Your task to perform on an android device: toggle wifi Image 0: 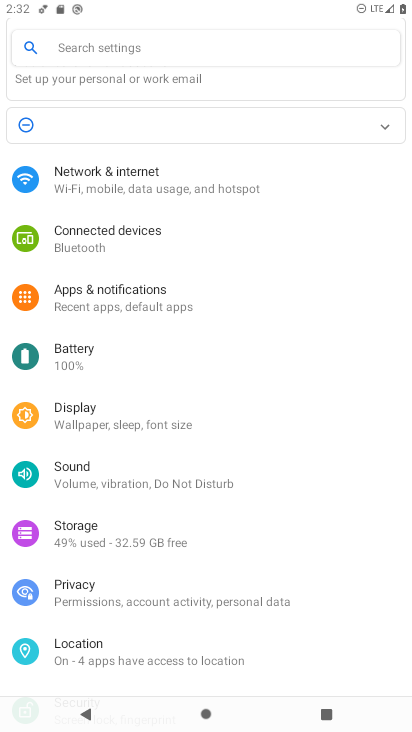
Step 0: click (82, 187)
Your task to perform on an android device: toggle wifi Image 1: 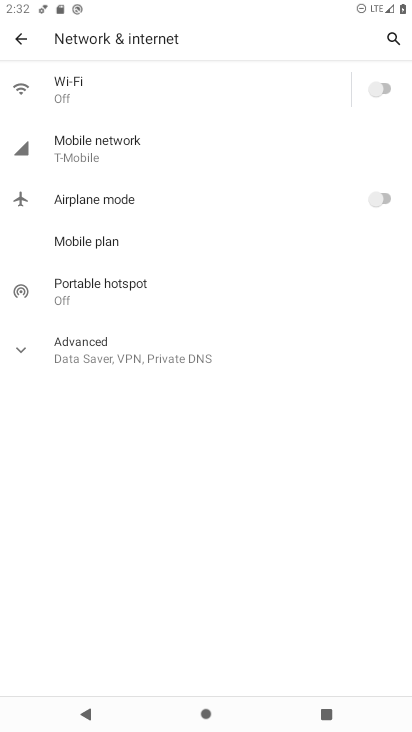
Step 1: click (18, 347)
Your task to perform on an android device: toggle wifi Image 2: 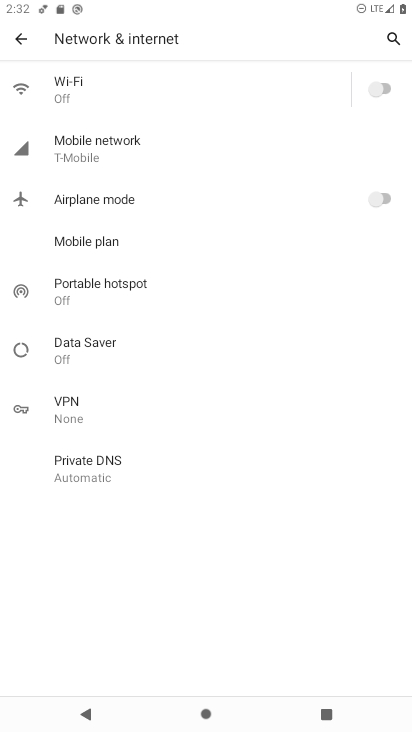
Step 2: click (387, 91)
Your task to perform on an android device: toggle wifi Image 3: 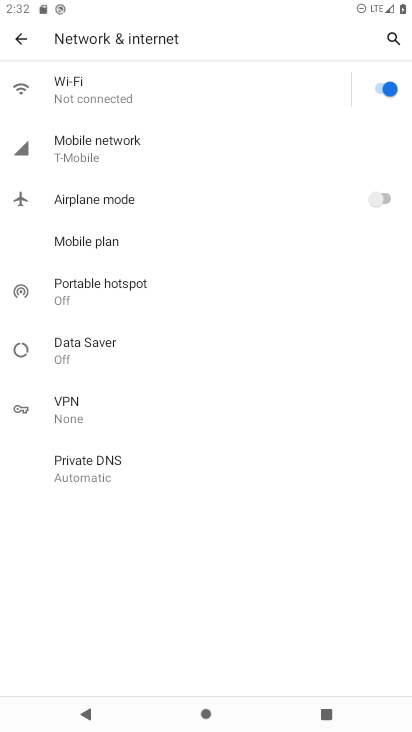
Step 3: task complete